Your task to perform on an android device: Open Amazon Image 0: 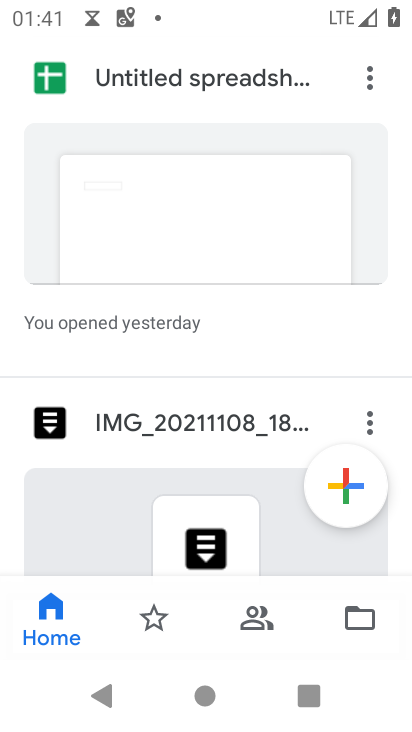
Step 0: press home button
Your task to perform on an android device: Open Amazon Image 1: 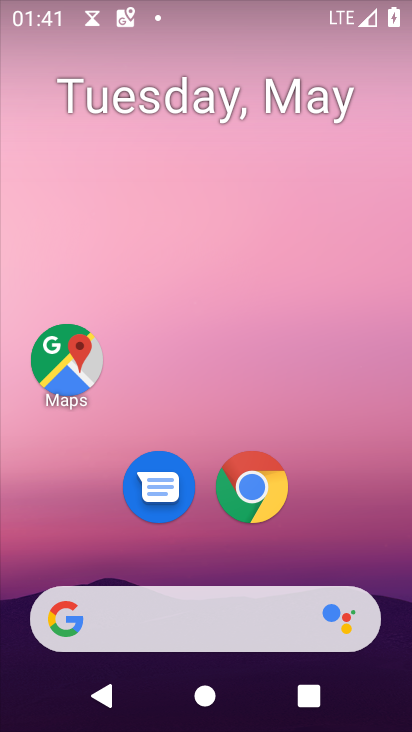
Step 1: drag from (317, 435) to (167, 33)
Your task to perform on an android device: Open Amazon Image 2: 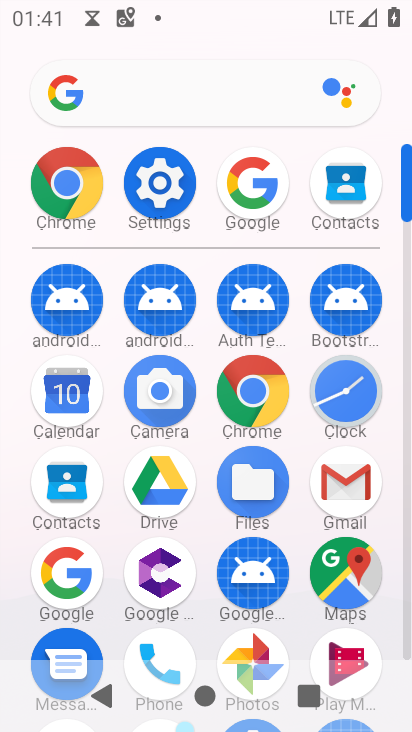
Step 2: drag from (230, 505) to (218, 228)
Your task to perform on an android device: Open Amazon Image 3: 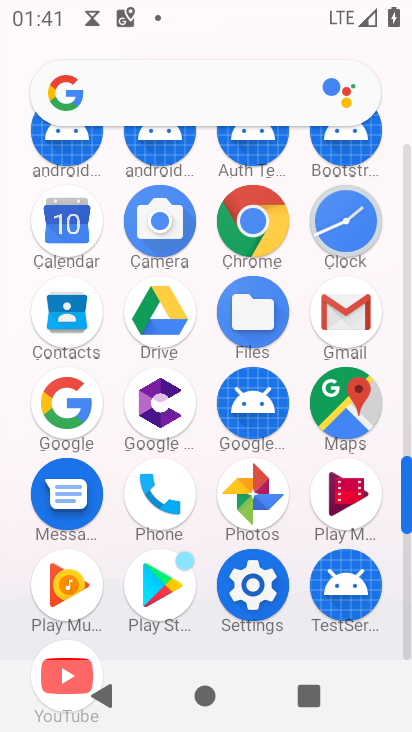
Step 3: click (262, 216)
Your task to perform on an android device: Open Amazon Image 4: 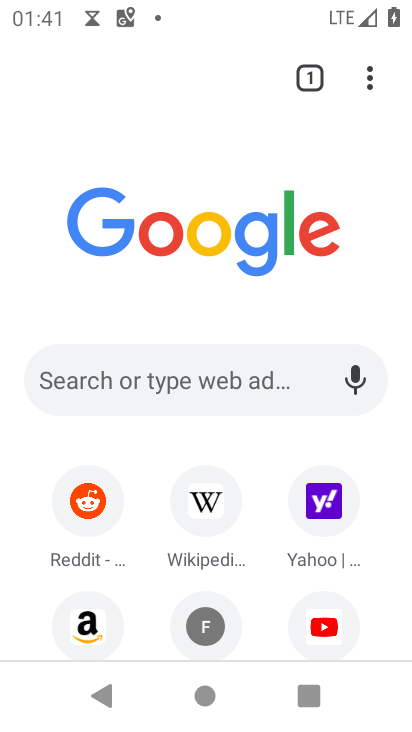
Step 4: click (85, 602)
Your task to perform on an android device: Open Amazon Image 5: 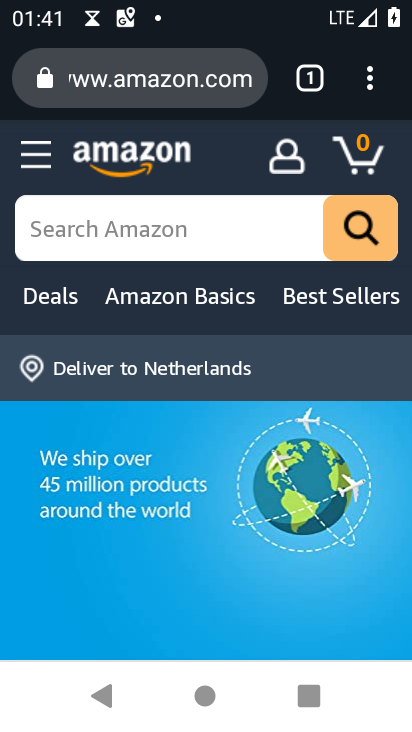
Step 5: task complete